Your task to perform on an android device: turn on location history Image 0: 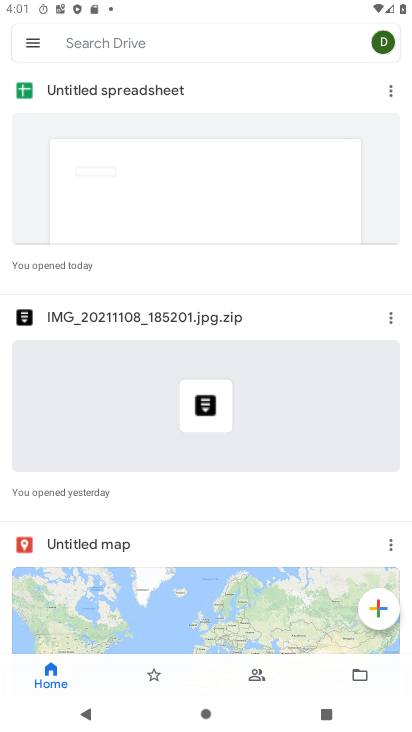
Step 0: press home button
Your task to perform on an android device: turn on location history Image 1: 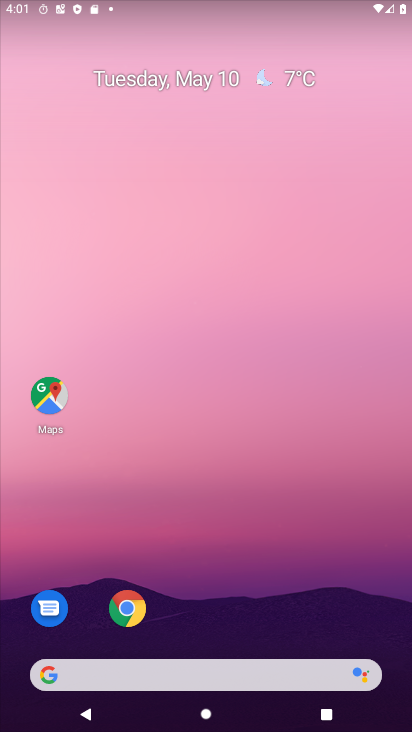
Step 1: click (50, 397)
Your task to perform on an android device: turn on location history Image 2: 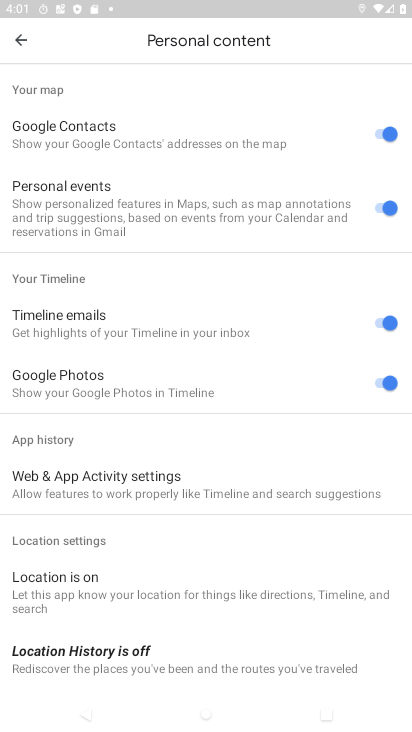
Step 2: click (96, 652)
Your task to perform on an android device: turn on location history Image 3: 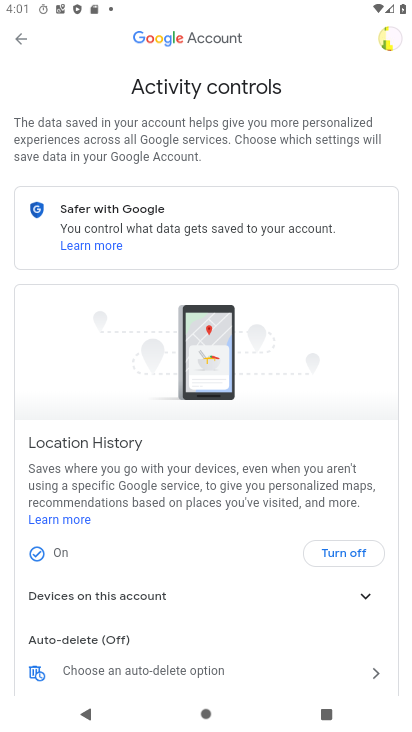
Step 3: task complete